Your task to perform on an android device: install app "Duolingo: language lessons" Image 0: 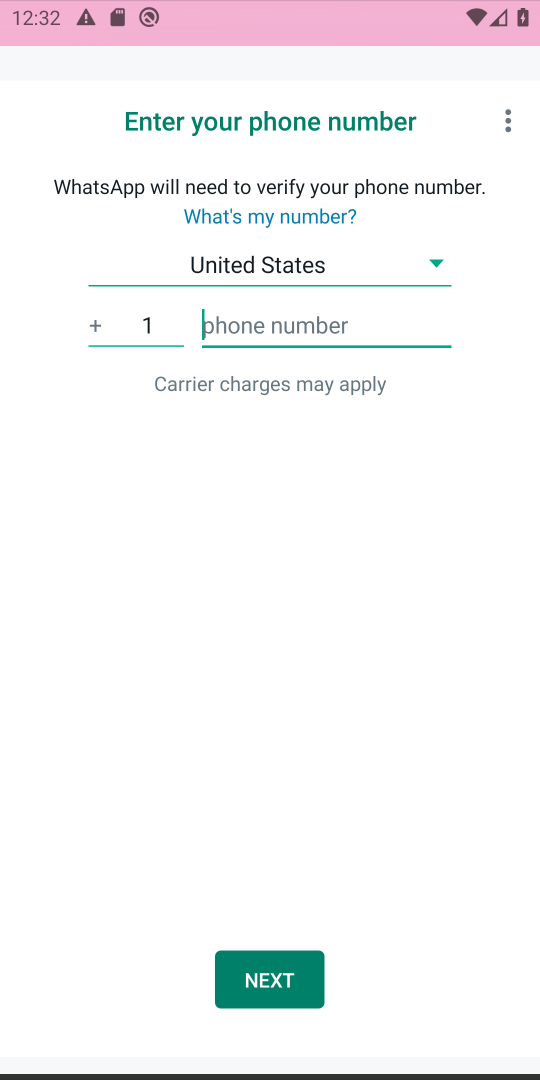
Step 0: click (535, 284)
Your task to perform on an android device: install app "Duolingo: language lessons" Image 1: 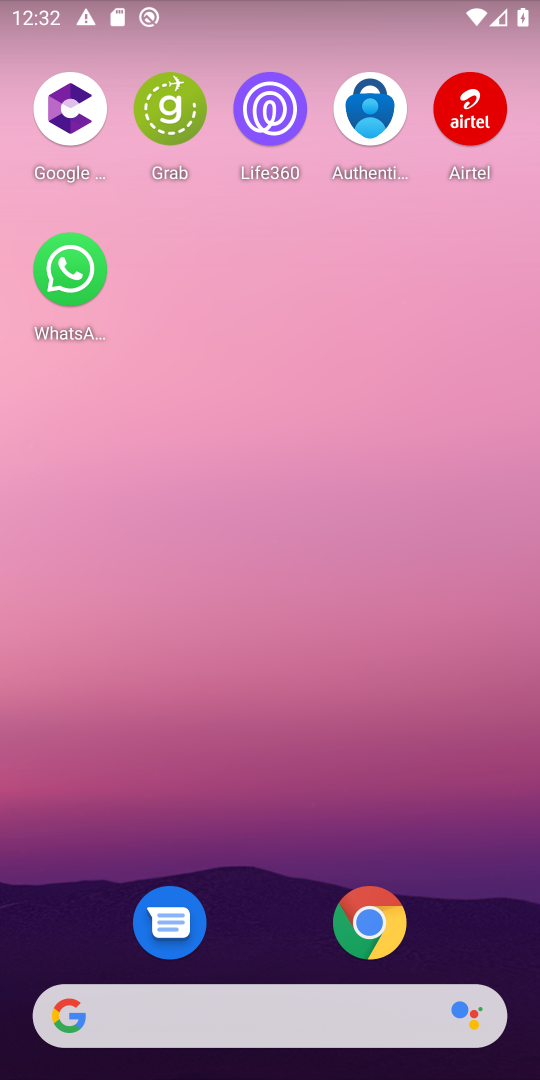
Step 1: drag from (244, 945) to (221, 1)
Your task to perform on an android device: install app "Duolingo: language lessons" Image 2: 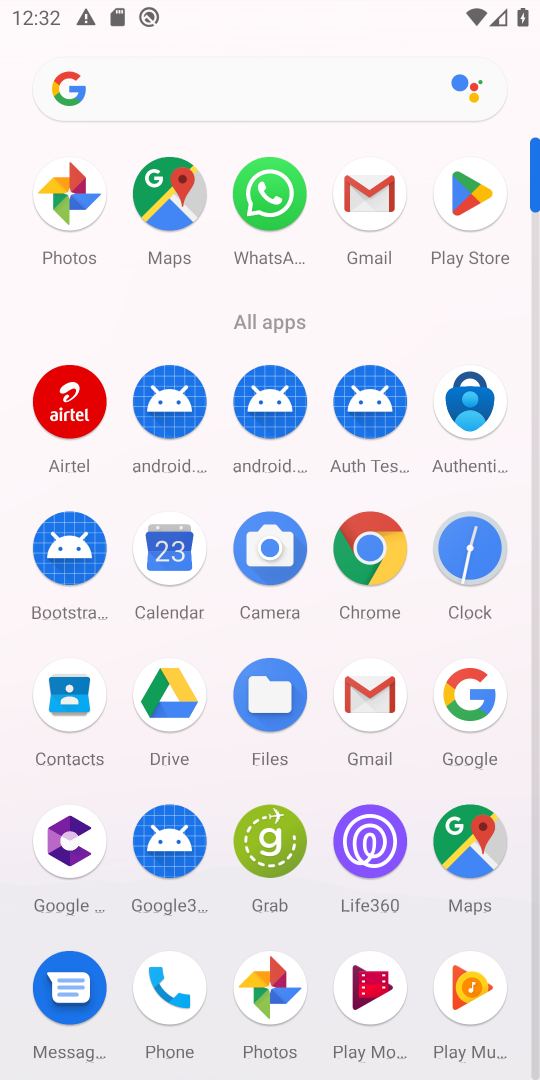
Step 2: click (469, 196)
Your task to perform on an android device: install app "Duolingo: language lessons" Image 3: 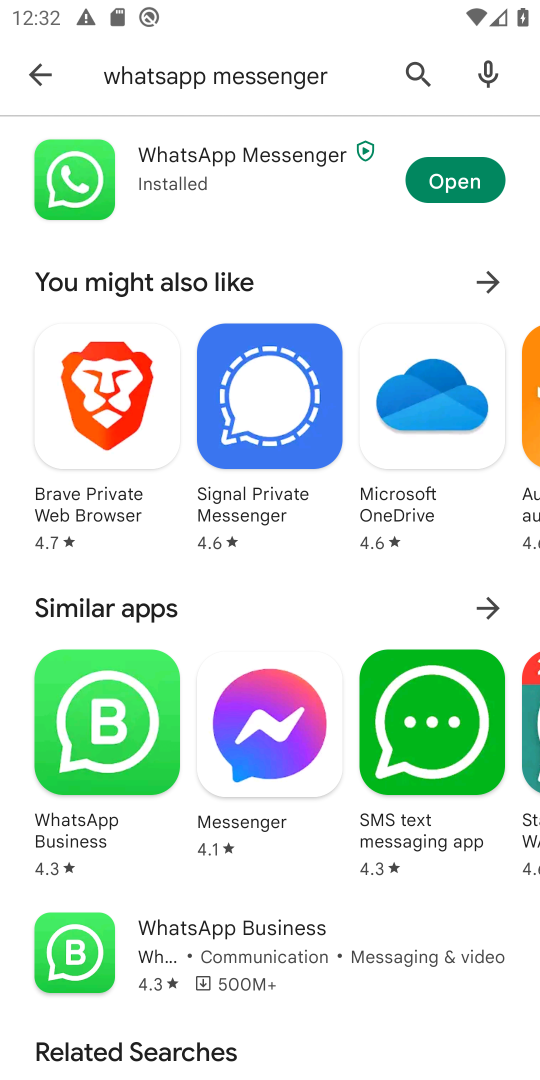
Step 3: click (267, 81)
Your task to perform on an android device: install app "Duolingo: language lessons" Image 4: 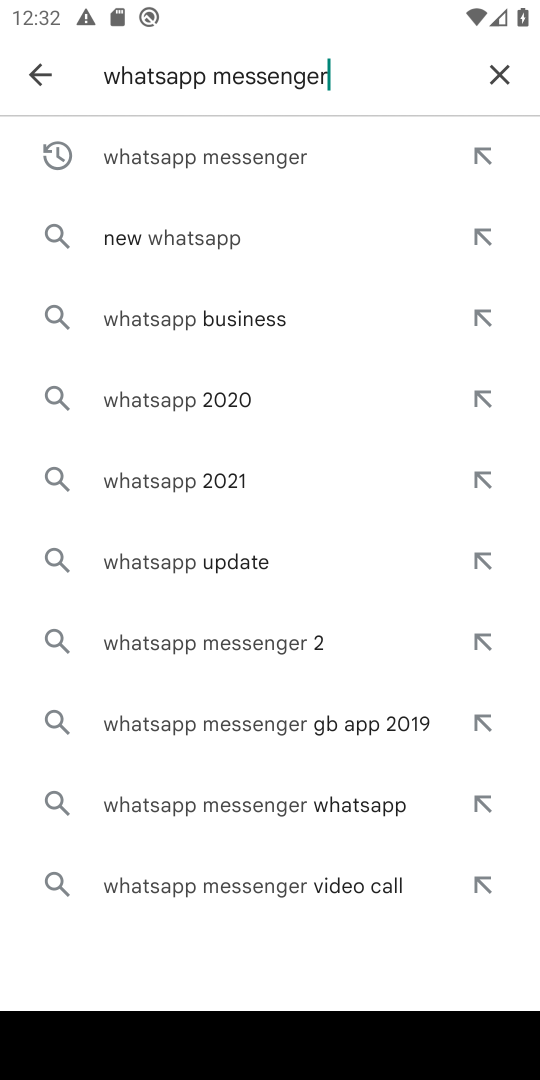
Step 4: click (496, 72)
Your task to perform on an android device: install app "Duolingo: language lessons" Image 5: 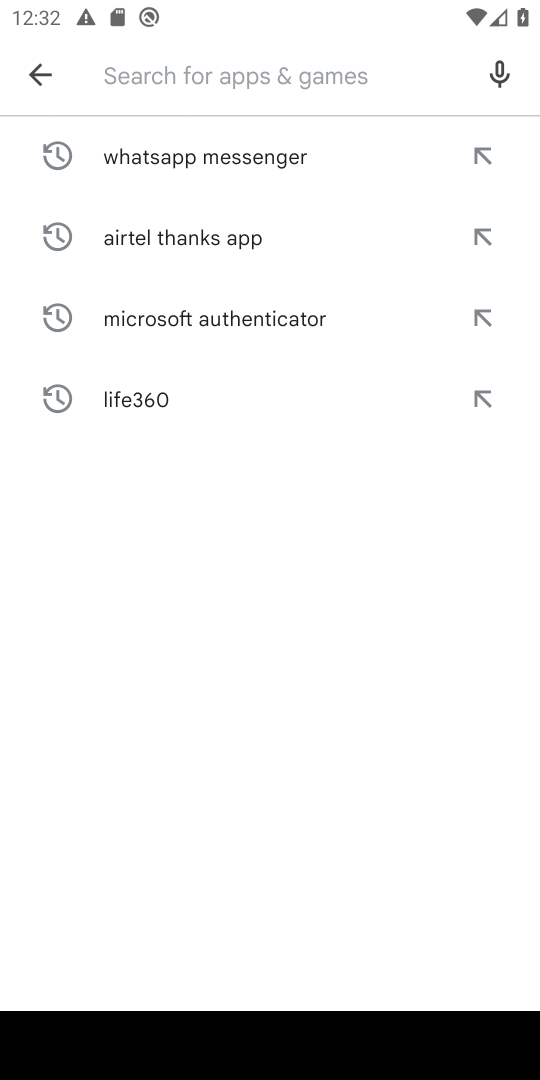
Step 5: type "duolingo"
Your task to perform on an android device: install app "Duolingo: language lessons" Image 6: 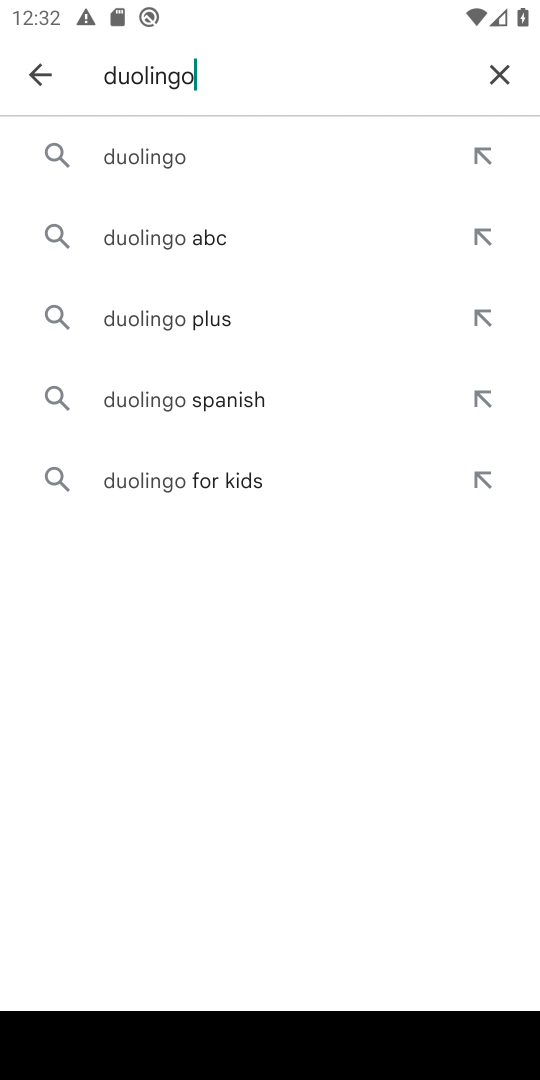
Step 6: click (154, 147)
Your task to perform on an android device: install app "Duolingo: language lessons" Image 7: 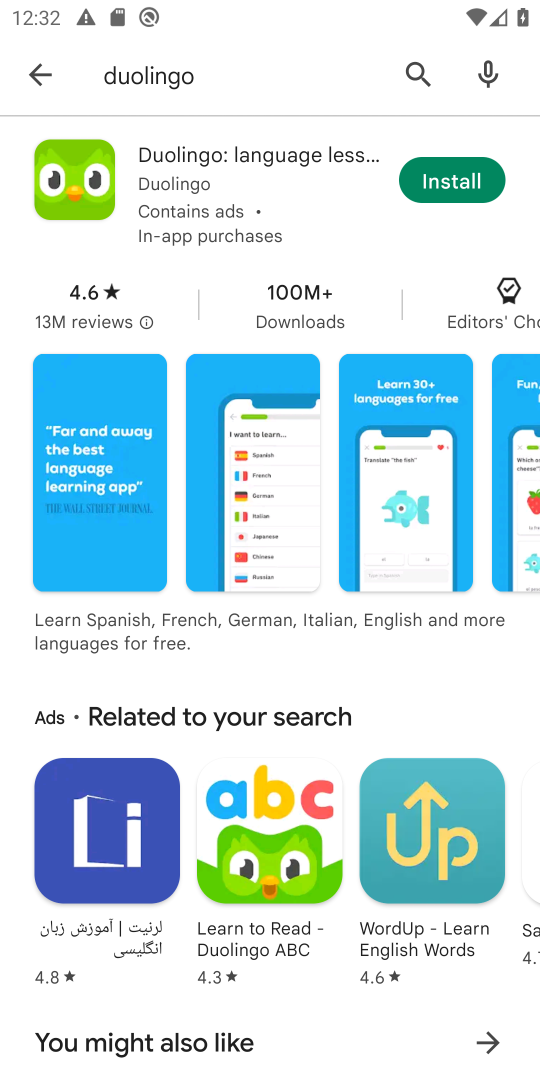
Step 7: click (450, 190)
Your task to perform on an android device: install app "Duolingo: language lessons" Image 8: 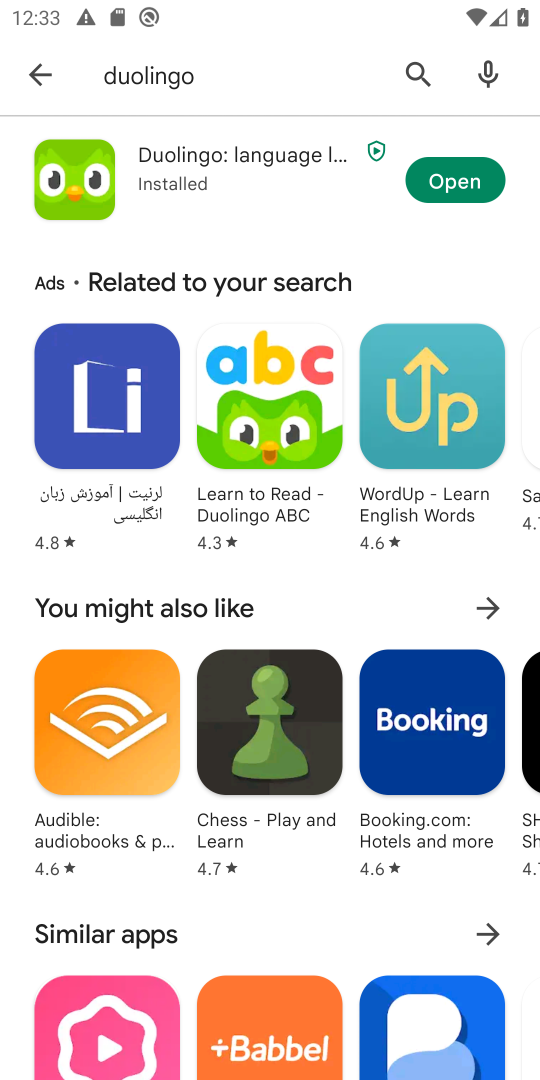
Step 8: task complete